Your task to perform on an android device: Open the map Image 0: 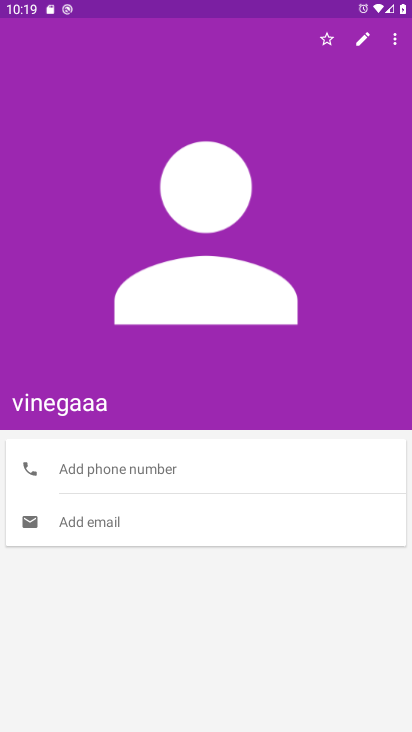
Step 0: press home button
Your task to perform on an android device: Open the map Image 1: 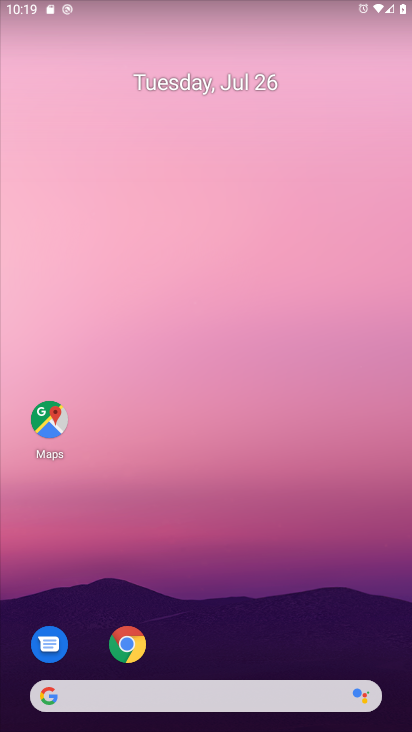
Step 1: click (20, 409)
Your task to perform on an android device: Open the map Image 2: 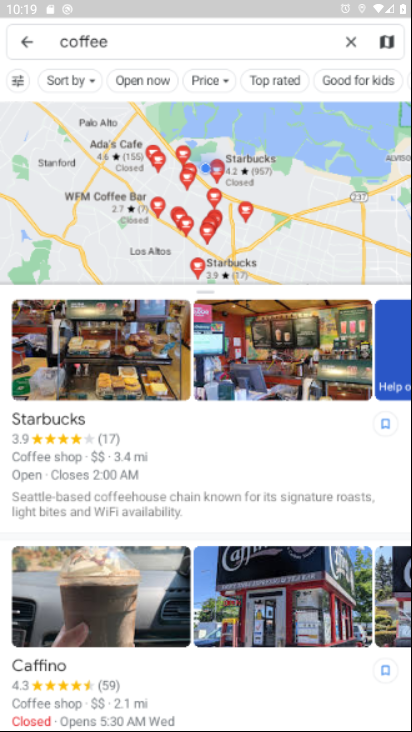
Step 2: click (24, 36)
Your task to perform on an android device: Open the map Image 3: 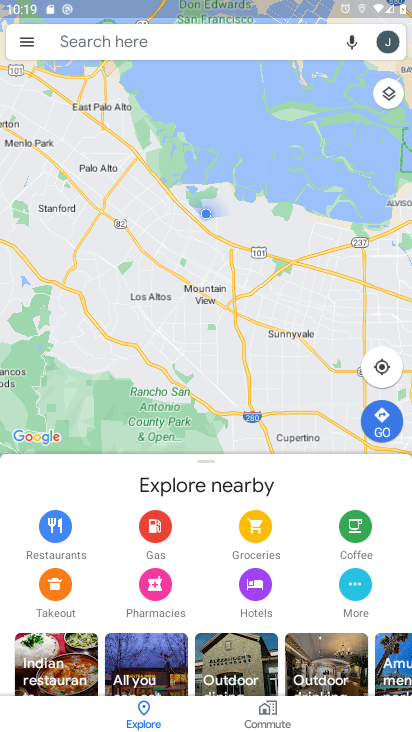
Step 3: task complete